Your task to perform on an android device: change the clock style Image 0: 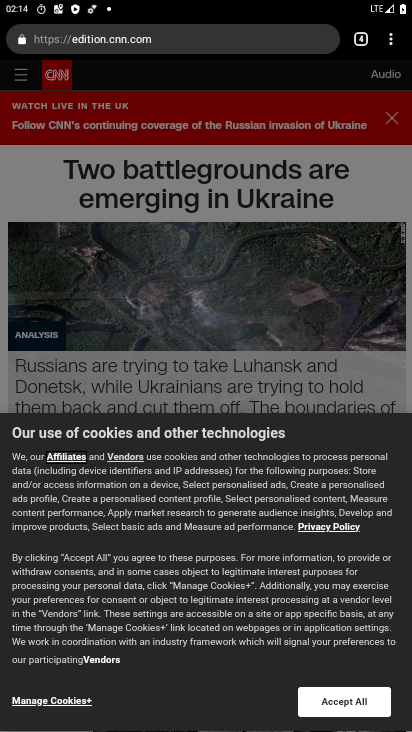
Step 0: press home button
Your task to perform on an android device: change the clock style Image 1: 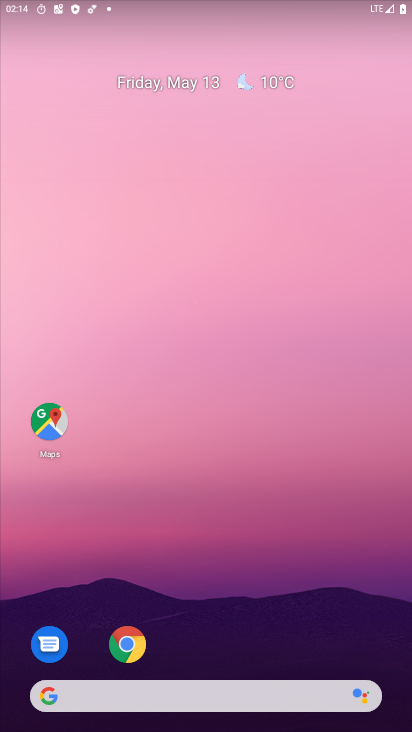
Step 1: drag from (251, 645) to (257, 4)
Your task to perform on an android device: change the clock style Image 2: 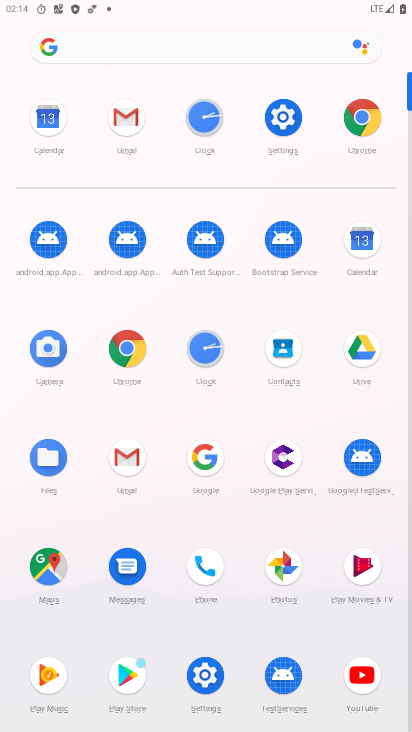
Step 2: click (201, 362)
Your task to perform on an android device: change the clock style Image 3: 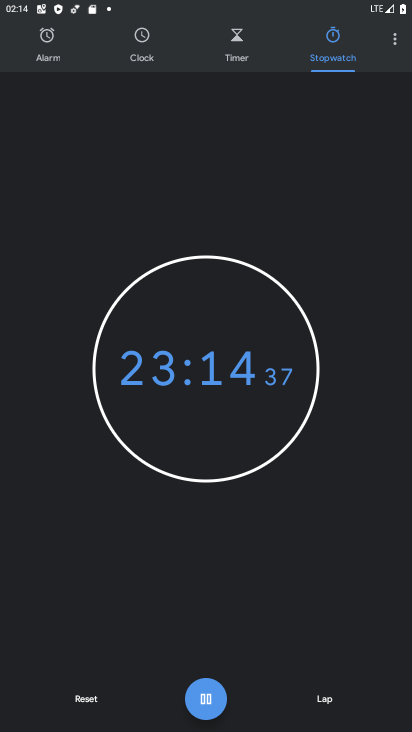
Step 3: click (391, 50)
Your task to perform on an android device: change the clock style Image 4: 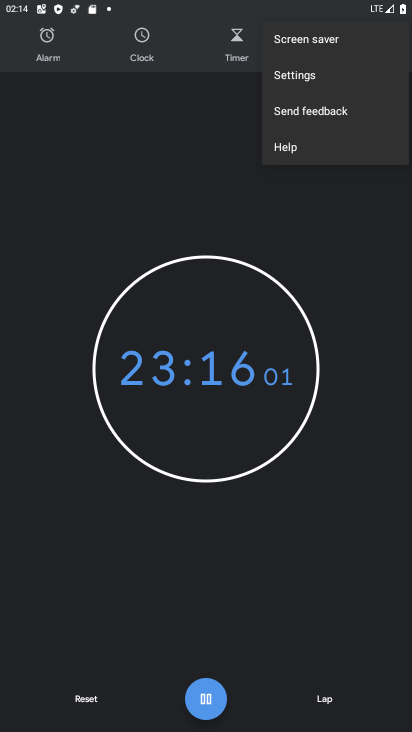
Step 4: click (324, 77)
Your task to perform on an android device: change the clock style Image 5: 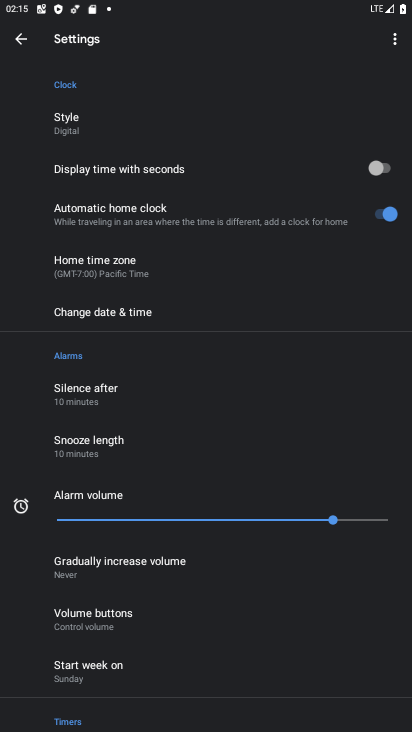
Step 5: drag from (116, 118) to (78, 118)
Your task to perform on an android device: change the clock style Image 6: 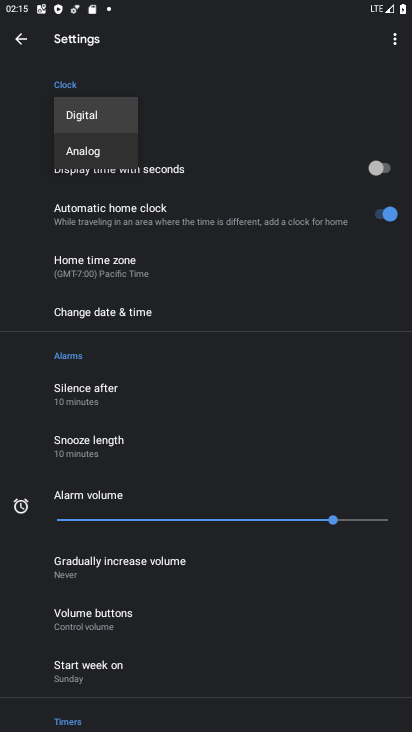
Step 6: click (120, 155)
Your task to perform on an android device: change the clock style Image 7: 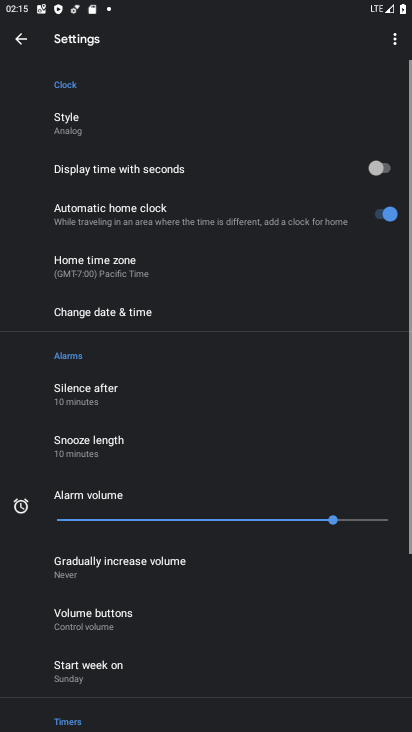
Step 7: task complete